Your task to perform on an android device: turn on wifi Image 0: 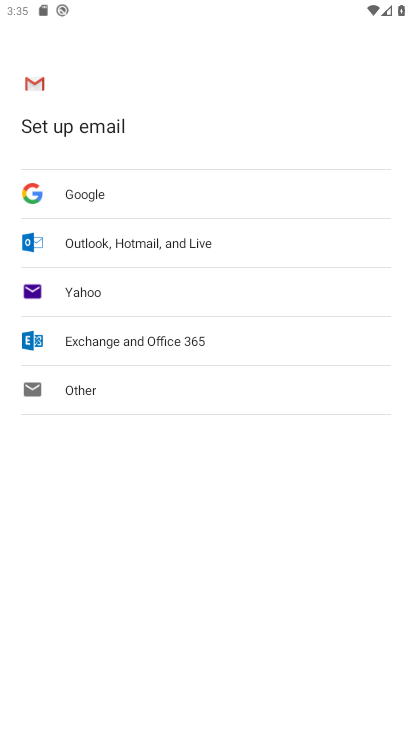
Step 0: press home button
Your task to perform on an android device: turn on wifi Image 1: 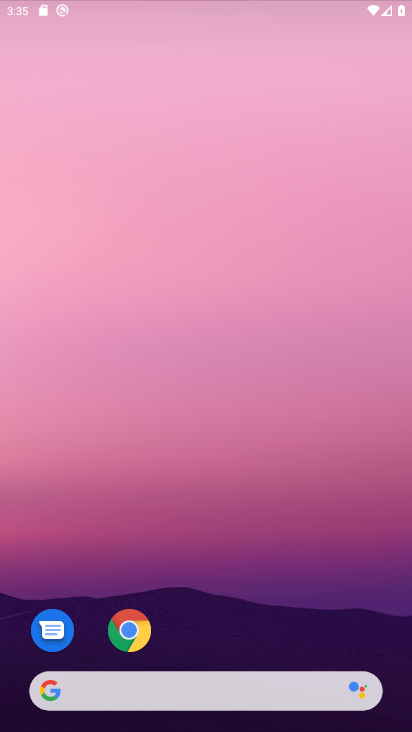
Step 1: drag from (272, 565) to (274, 161)
Your task to perform on an android device: turn on wifi Image 2: 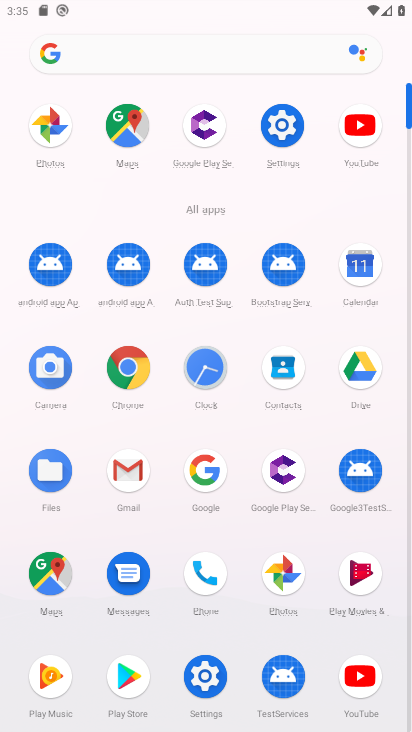
Step 2: click (269, 130)
Your task to perform on an android device: turn on wifi Image 3: 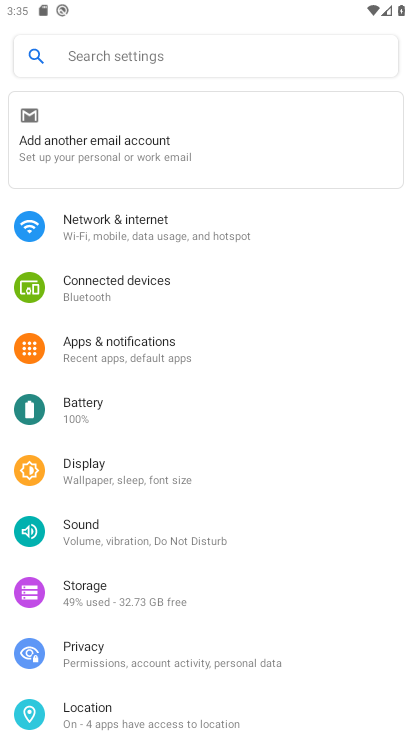
Step 3: click (154, 217)
Your task to perform on an android device: turn on wifi Image 4: 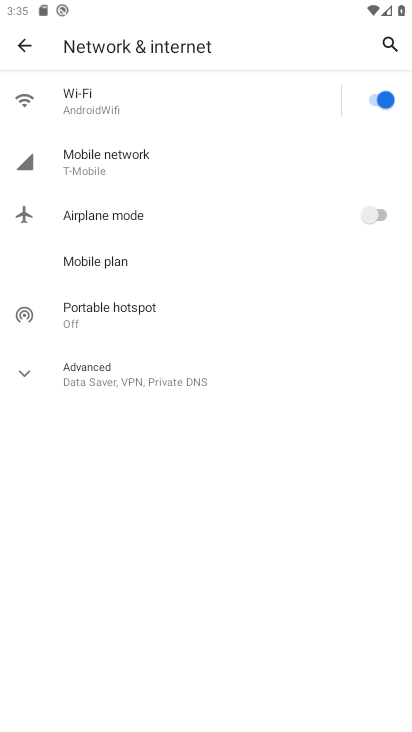
Step 4: task complete